Your task to perform on an android device: turn off picture-in-picture Image 0: 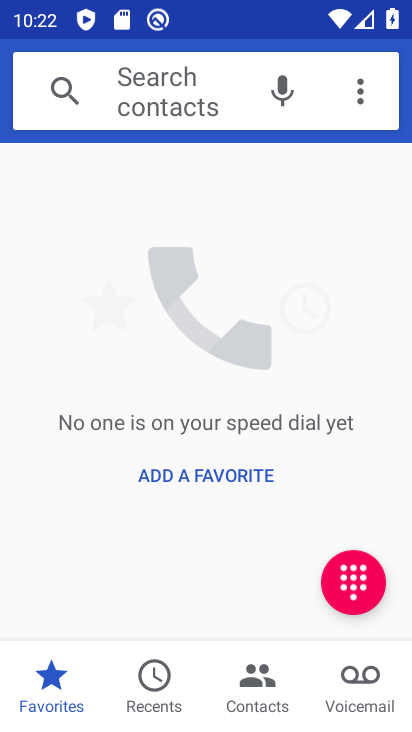
Step 0: press home button
Your task to perform on an android device: turn off picture-in-picture Image 1: 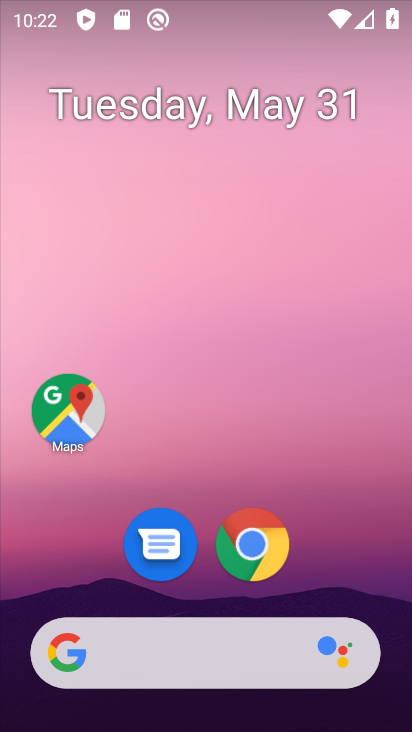
Step 1: click (241, 536)
Your task to perform on an android device: turn off picture-in-picture Image 2: 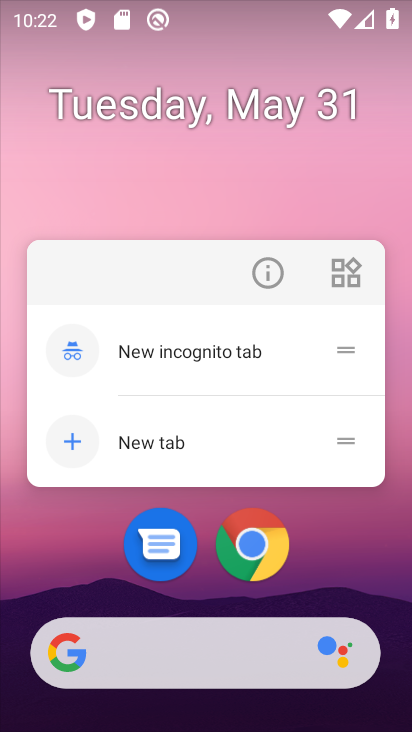
Step 2: click (266, 288)
Your task to perform on an android device: turn off picture-in-picture Image 3: 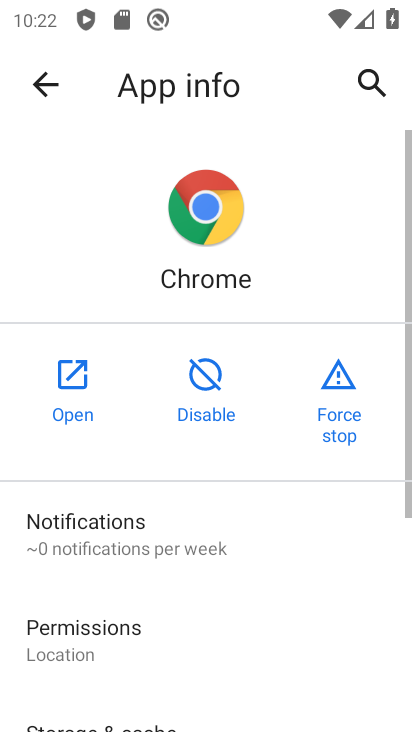
Step 3: drag from (225, 662) to (236, 197)
Your task to perform on an android device: turn off picture-in-picture Image 4: 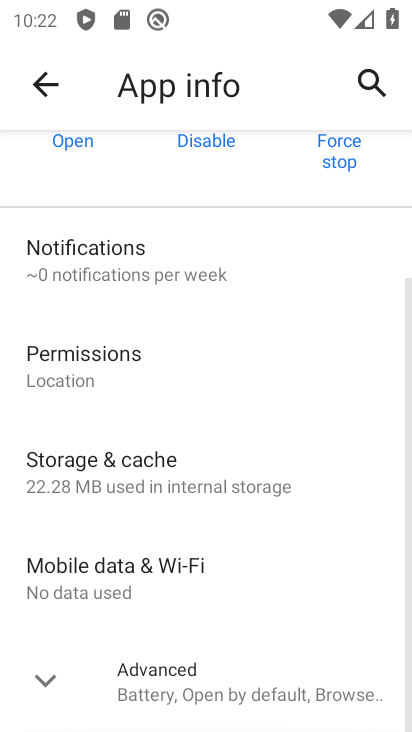
Step 4: drag from (194, 607) to (205, 284)
Your task to perform on an android device: turn off picture-in-picture Image 5: 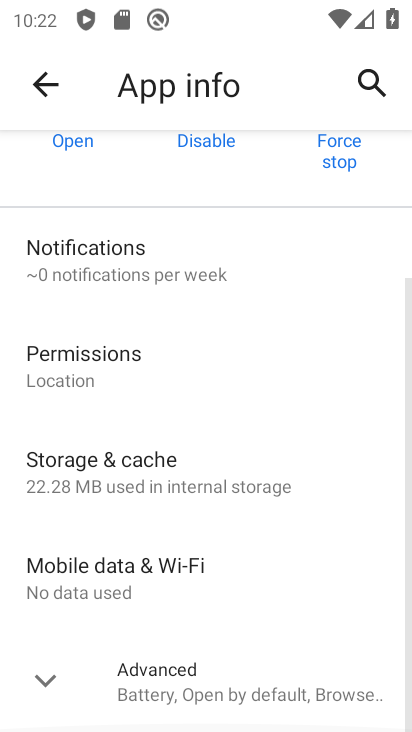
Step 5: click (183, 676)
Your task to perform on an android device: turn off picture-in-picture Image 6: 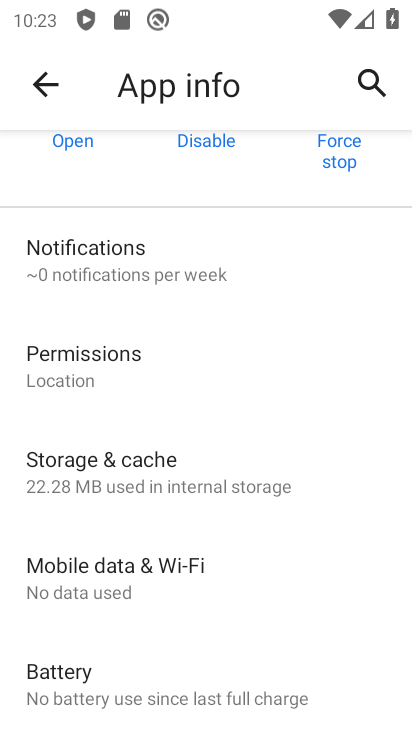
Step 6: drag from (189, 670) to (202, 250)
Your task to perform on an android device: turn off picture-in-picture Image 7: 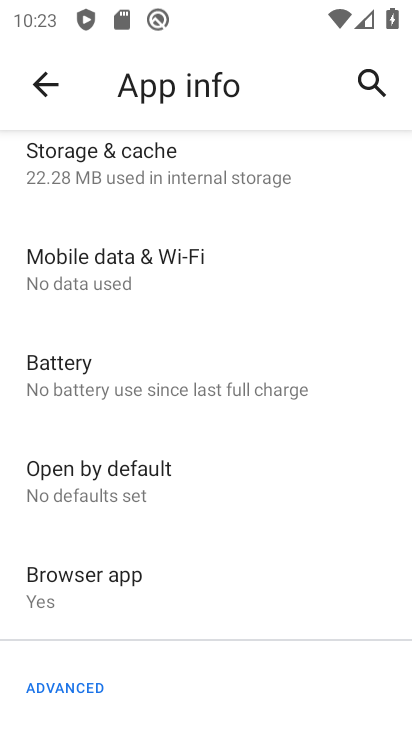
Step 7: drag from (155, 616) to (176, 255)
Your task to perform on an android device: turn off picture-in-picture Image 8: 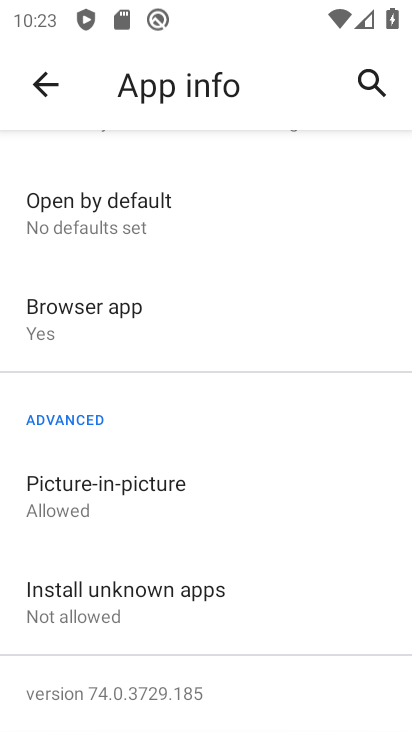
Step 8: drag from (176, 642) to (201, 359)
Your task to perform on an android device: turn off picture-in-picture Image 9: 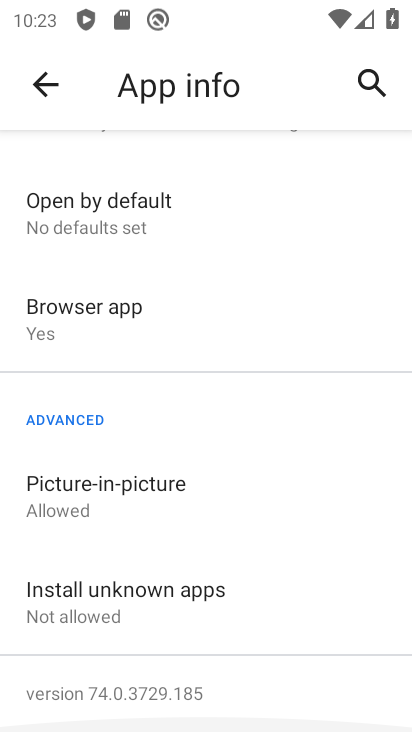
Step 9: click (104, 499)
Your task to perform on an android device: turn off picture-in-picture Image 10: 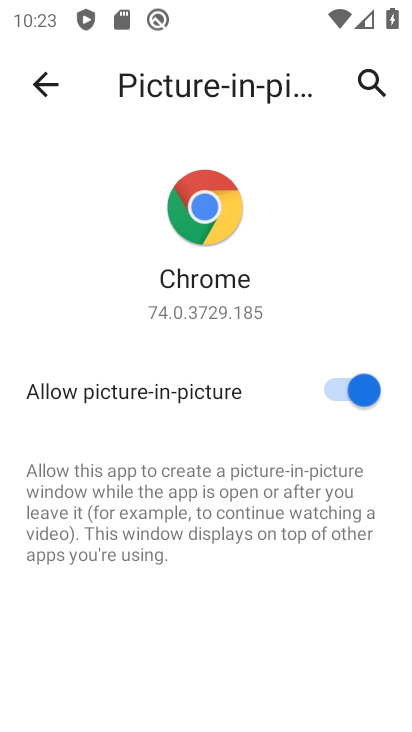
Step 10: click (328, 385)
Your task to perform on an android device: turn off picture-in-picture Image 11: 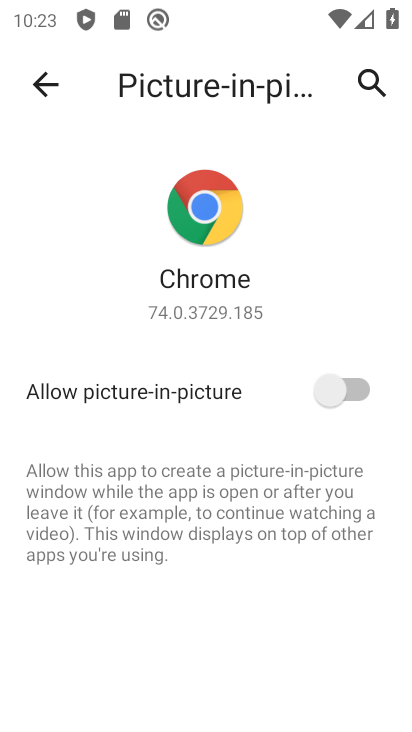
Step 11: task complete